Your task to perform on an android device: Go to wifi settings Image 0: 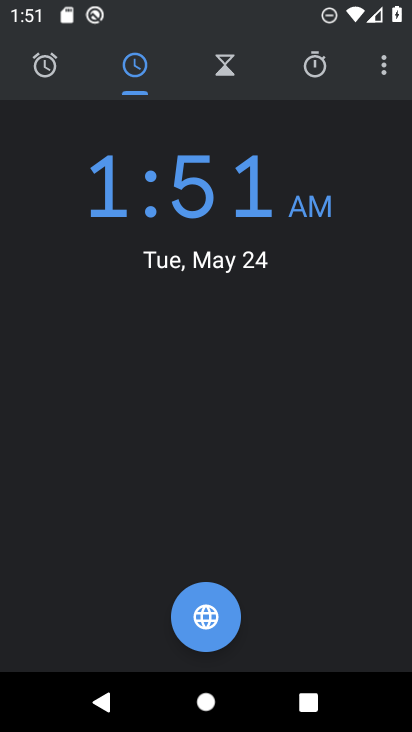
Step 0: press home button
Your task to perform on an android device: Go to wifi settings Image 1: 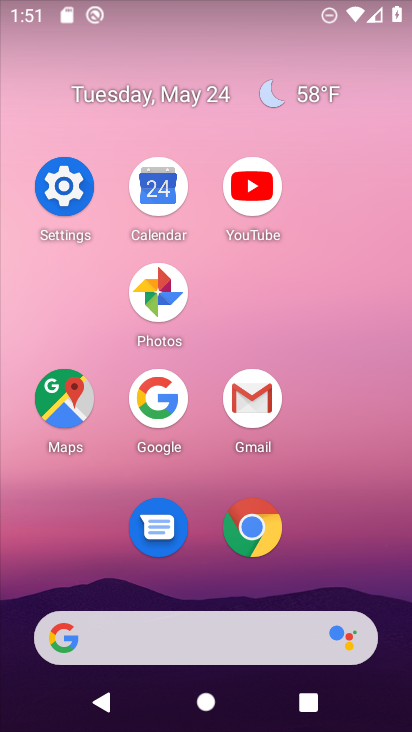
Step 1: click (74, 179)
Your task to perform on an android device: Go to wifi settings Image 2: 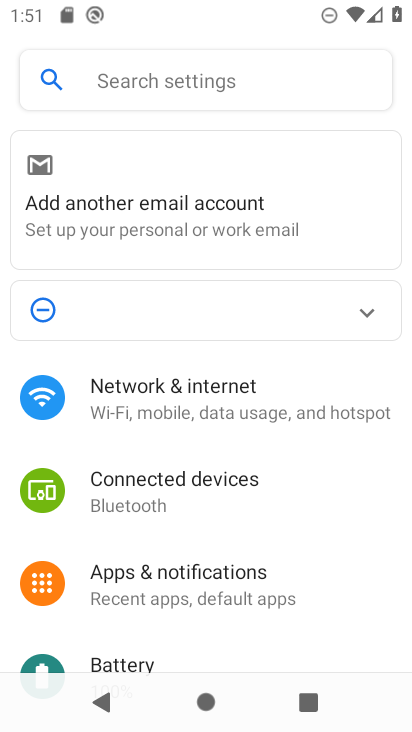
Step 2: click (278, 381)
Your task to perform on an android device: Go to wifi settings Image 3: 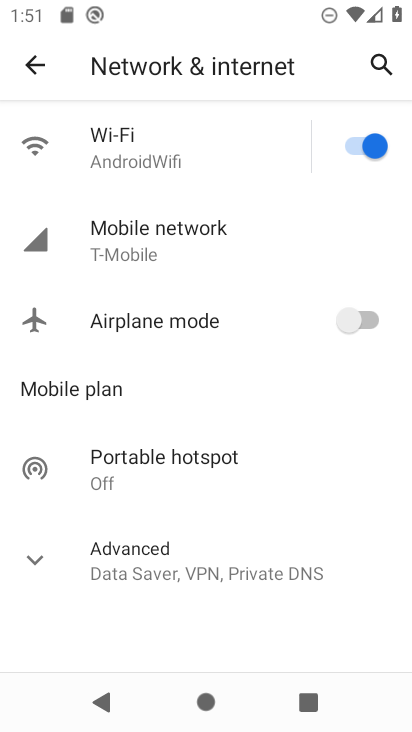
Step 3: click (148, 163)
Your task to perform on an android device: Go to wifi settings Image 4: 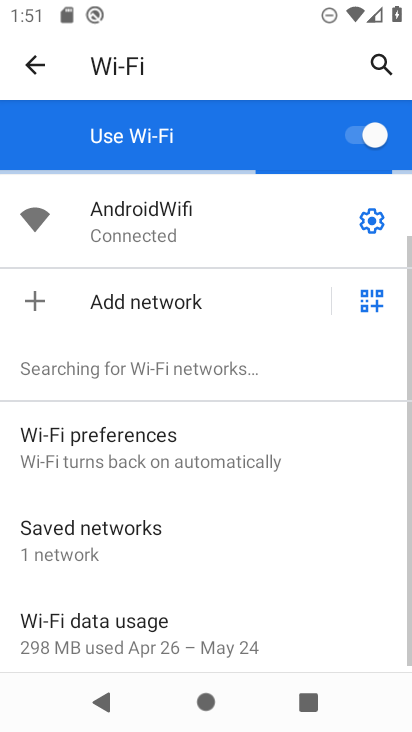
Step 4: click (377, 213)
Your task to perform on an android device: Go to wifi settings Image 5: 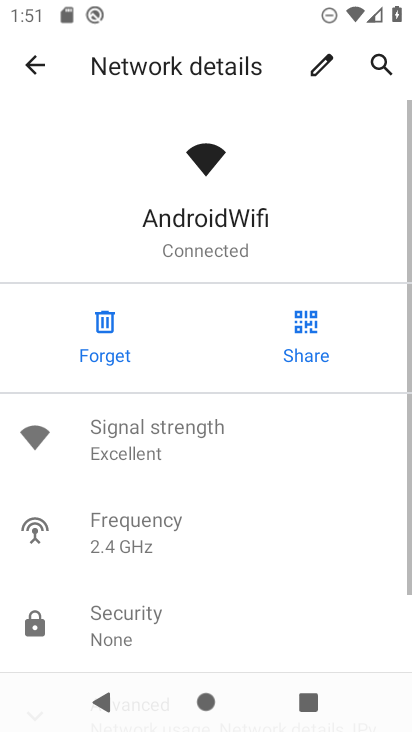
Step 5: task complete